Your task to perform on an android device: change the clock display to show seconds Image 0: 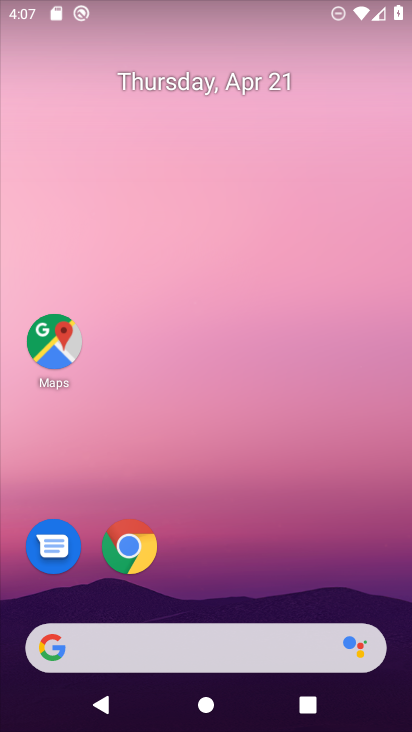
Step 0: drag from (251, 614) to (349, 18)
Your task to perform on an android device: change the clock display to show seconds Image 1: 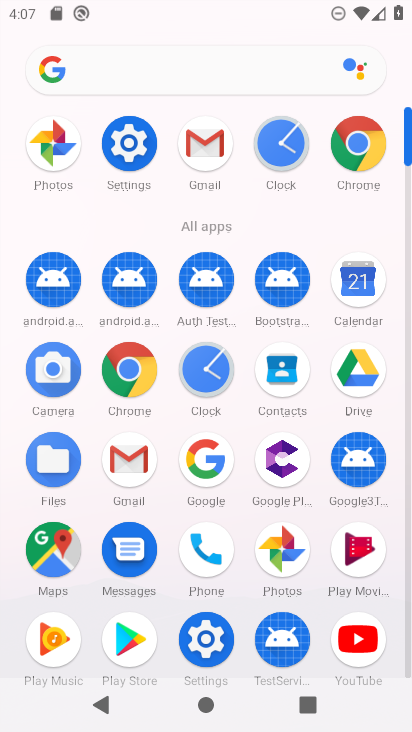
Step 1: click (205, 383)
Your task to perform on an android device: change the clock display to show seconds Image 2: 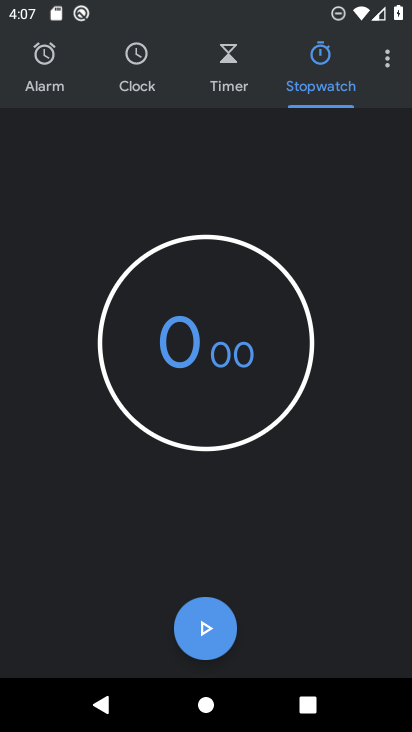
Step 2: click (375, 72)
Your task to perform on an android device: change the clock display to show seconds Image 3: 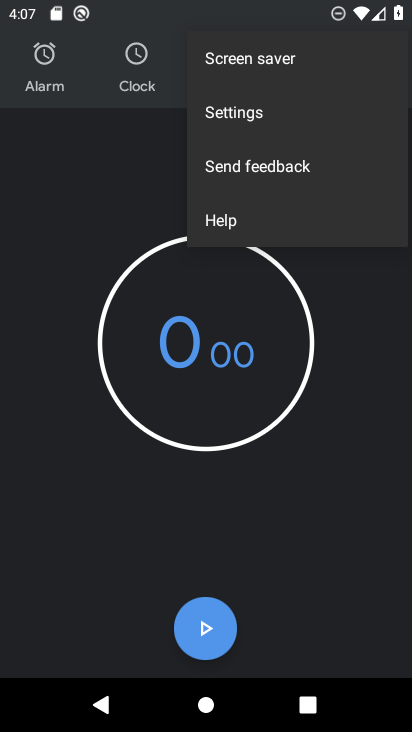
Step 3: click (238, 120)
Your task to perform on an android device: change the clock display to show seconds Image 4: 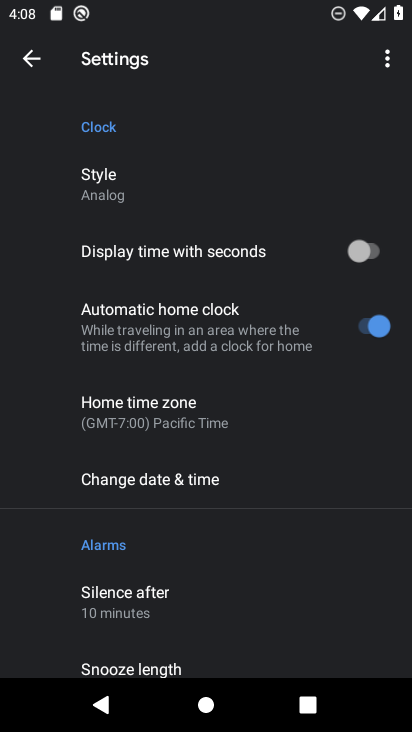
Step 4: click (379, 252)
Your task to perform on an android device: change the clock display to show seconds Image 5: 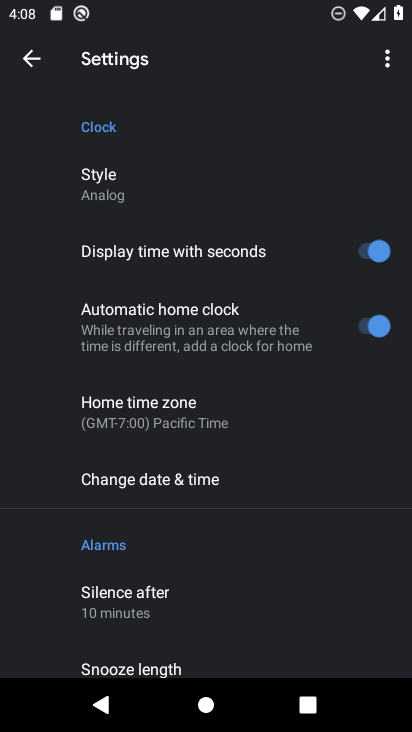
Step 5: task complete